Your task to perform on an android device: create a new album in the google photos Image 0: 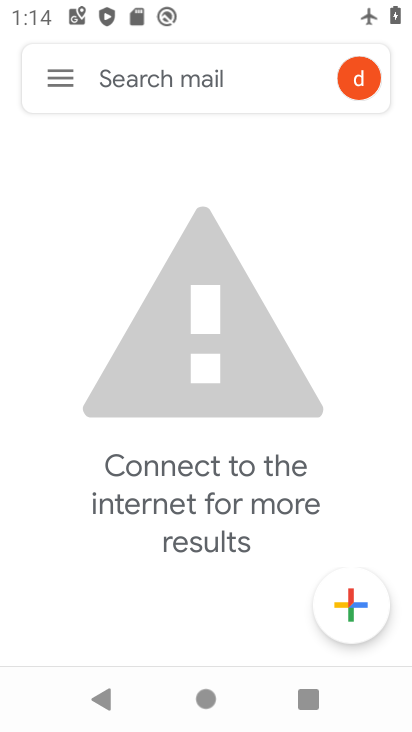
Step 0: press home button
Your task to perform on an android device: create a new album in the google photos Image 1: 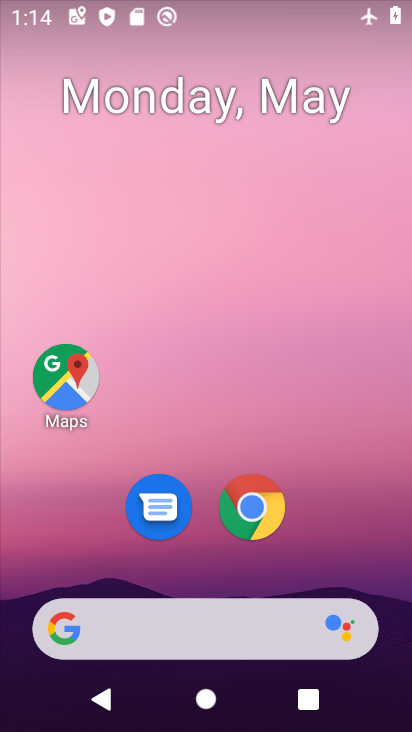
Step 1: drag from (226, 726) to (224, 119)
Your task to perform on an android device: create a new album in the google photos Image 2: 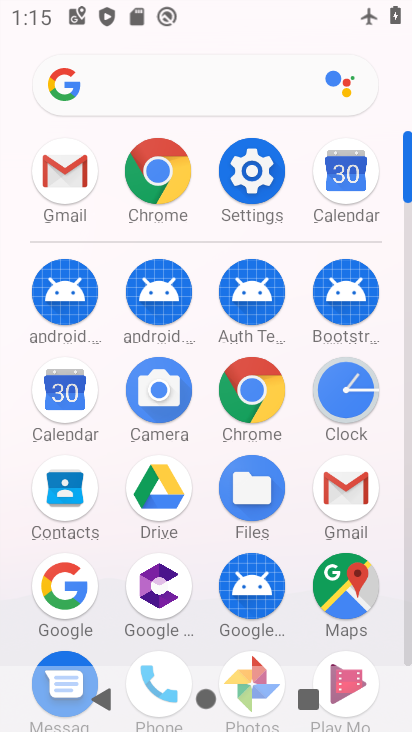
Step 2: click (254, 674)
Your task to perform on an android device: create a new album in the google photos Image 3: 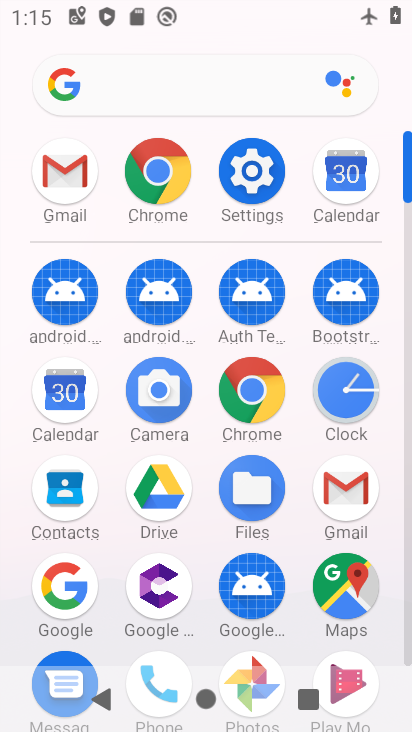
Step 3: drag from (291, 637) to (265, 169)
Your task to perform on an android device: create a new album in the google photos Image 4: 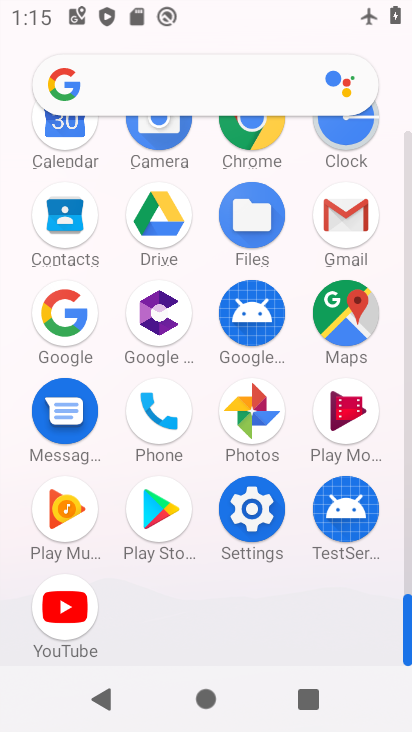
Step 4: click (251, 415)
Your task to perform on an android device: create a new album in the google photos Image 5: 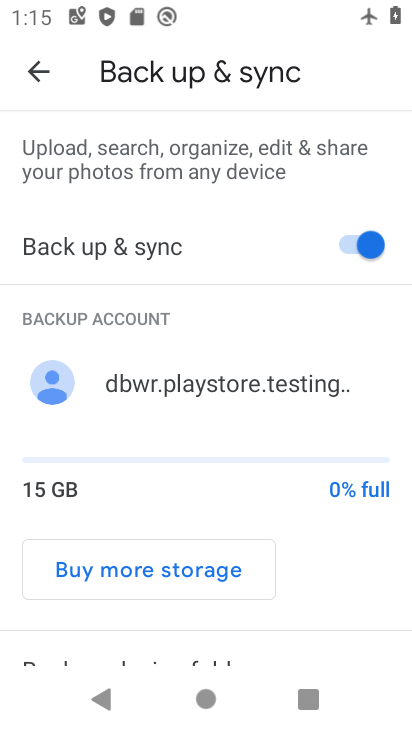
Step 5: click (35, 66)
Your task to perform on an android device: create a new album in the google photos Image 6: 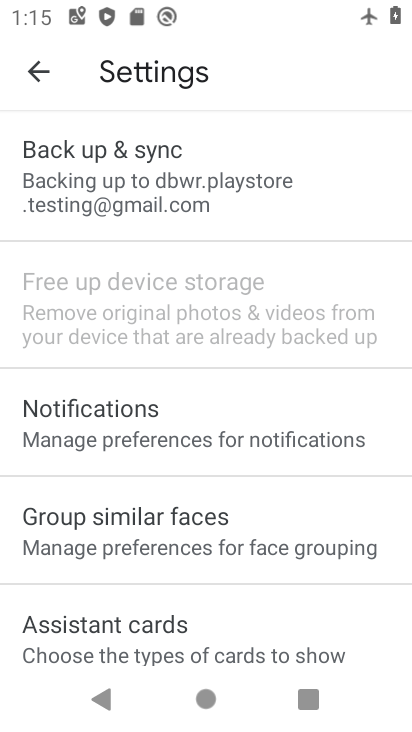
Step 6: click (22, 67)
Your task to perform on an android device: create a new album in the google photos Image 7: 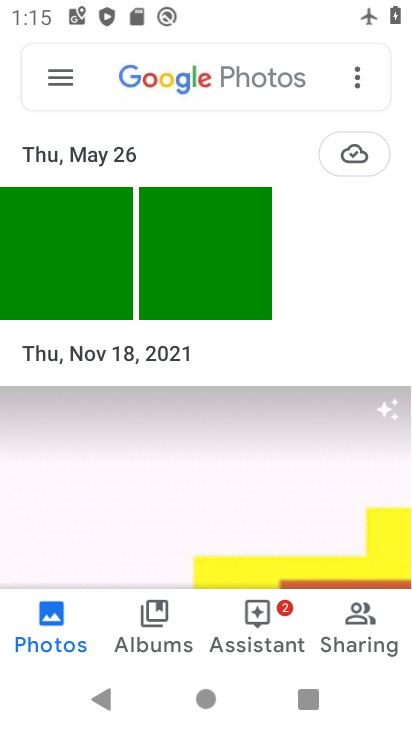
Step 7: click (355, 76)
Your task to perform on an android device: create a new album in the google photos Image 8: 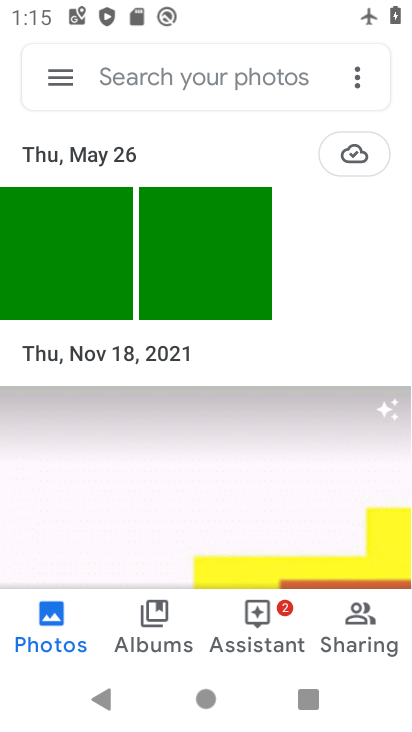
Step 8: click (355, 77)
Your task to perform on an android device: create a new album in the google photos Image 9: 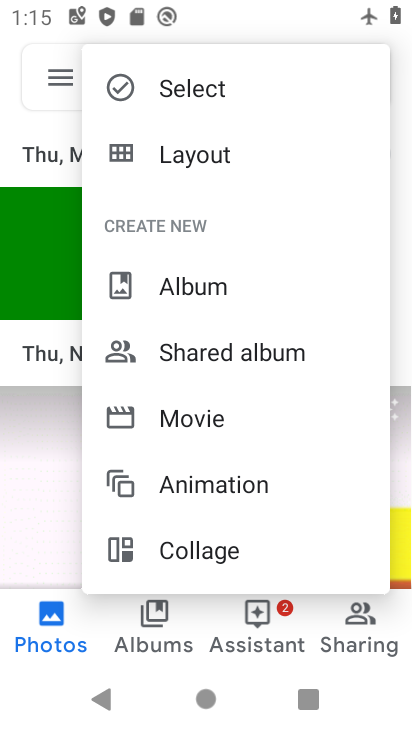
Step 9: click (192, 285)
Your task to perform on an android device: create a new album in the google photos Image 10: 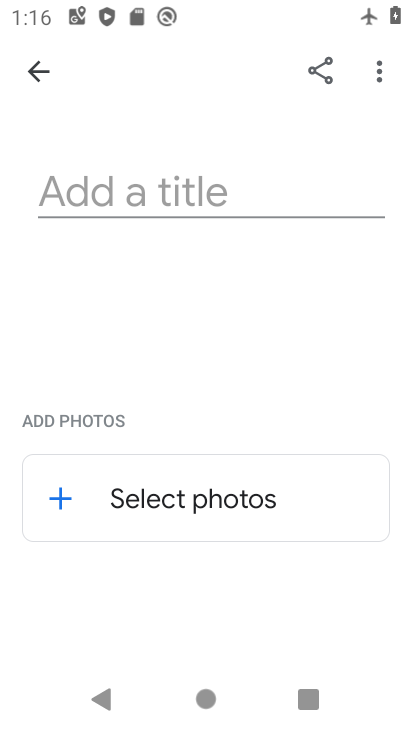
Step 10: click (146, 198)
Your task to perform on an android device: create a new album in the google photos Image 11: 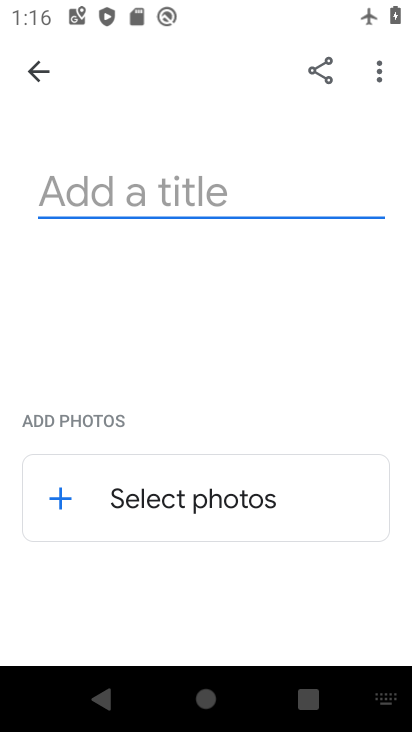
Step 11: type "nnnnnvvc"
Your task to perform on an android device: create a new album in the google photos Image 12: 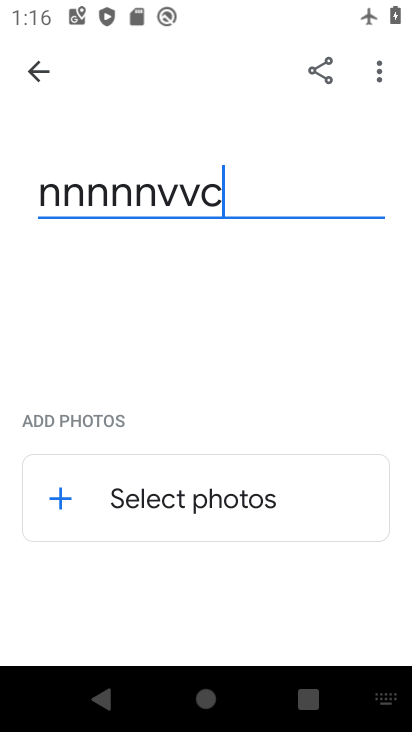
Step 12: click (285, 316)
Your task to perform on an android device: create a new album in the google photos Image 13: 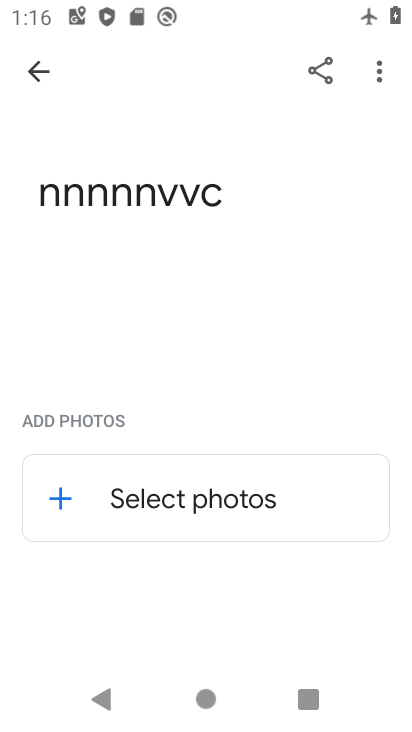
Step 13: click (109, 493)
Your task to perform on an android device: create a new album in the google photos Image 14: 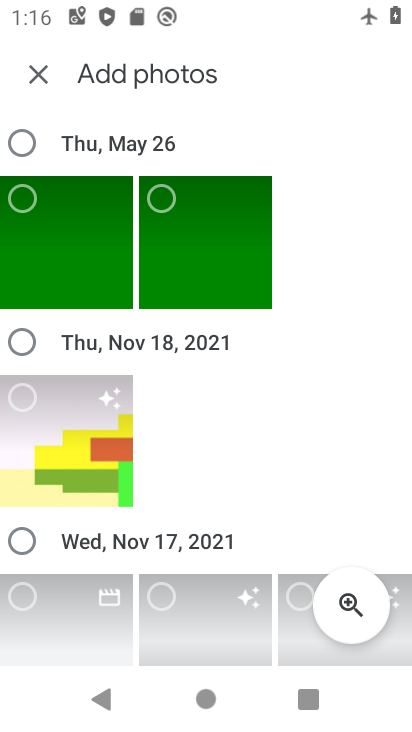
Step 14: click (164, 200)
Your task to perform on an android device: create a new album in the google photos Image 15: 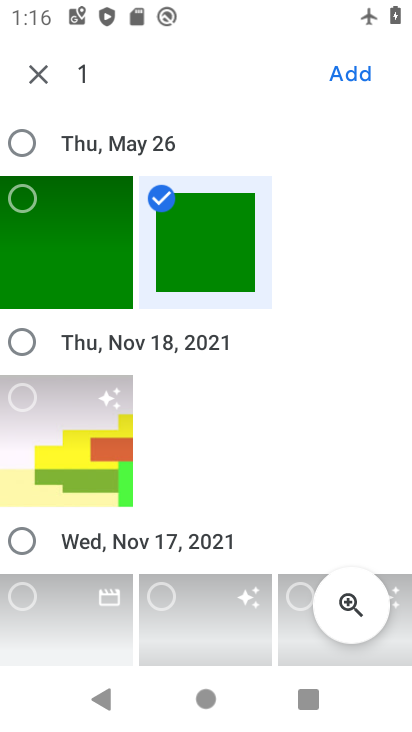
Step 15: click (19, 390)
Your task to perform on an android device: create a new album in the google photos Image 16: 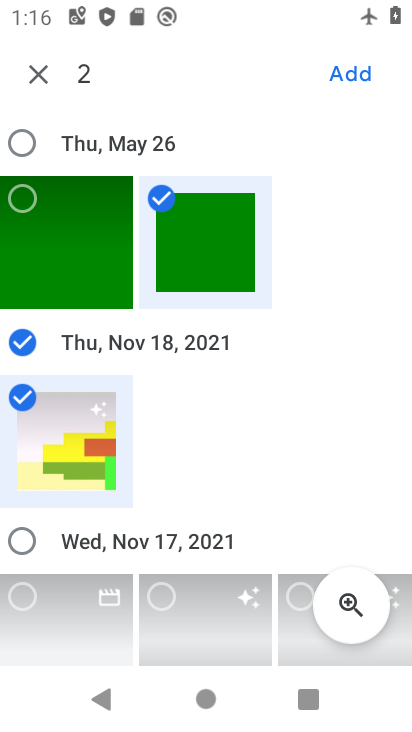
Step 16: click (355, 74)
Your task to perform on an android device: create a new album in the google photos Image 17: 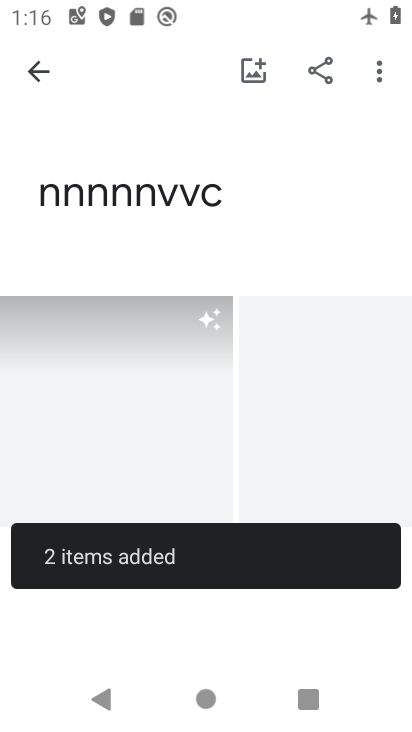
Step 17: task complete